Your task to perform on an android device: turn smart compose on in the gmail app Image 0: 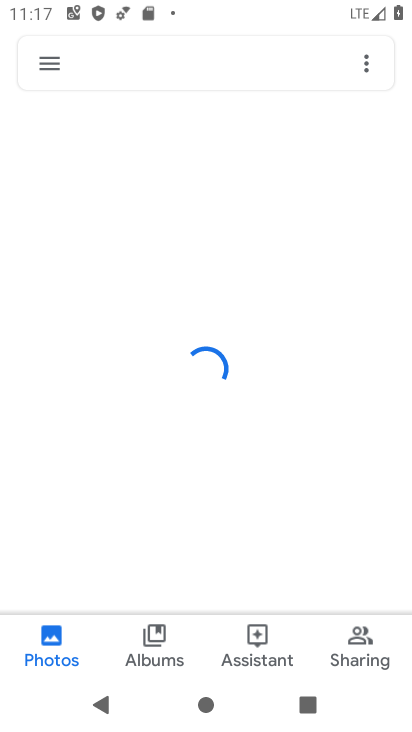
Step 0: press home button
Your task to perform on an android device: turn smart compose on in the gmail app Image 1: 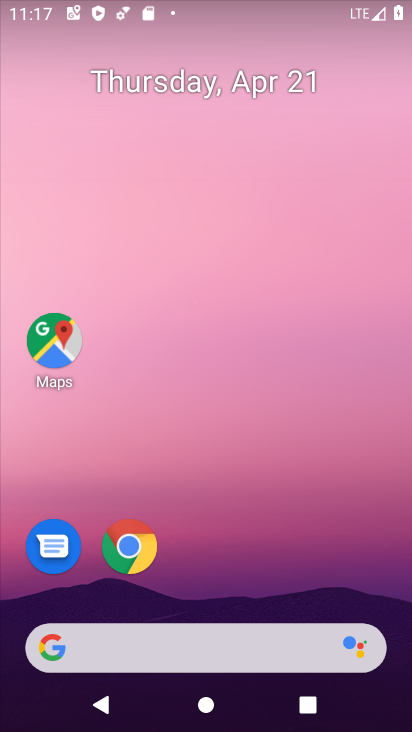
Step 1: drag from (226, 546) to (227, 126)
Your task to perform on an android device: turn smart compose on in the gmail app Image 2: 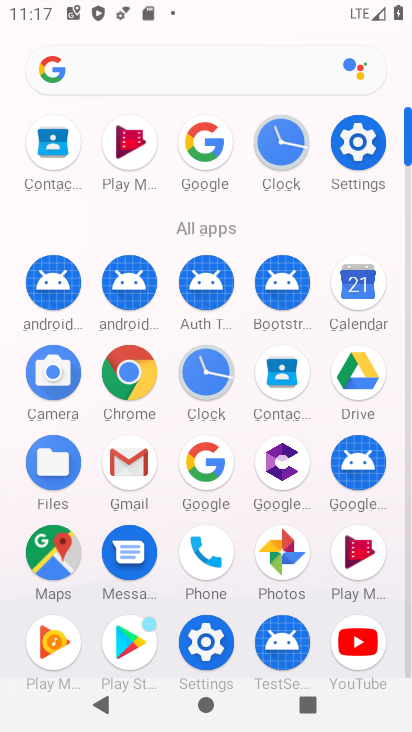
Step 2: click (128, 466)
Your task to perform on an android device: turn smart compose on in the gmail app Image 3: 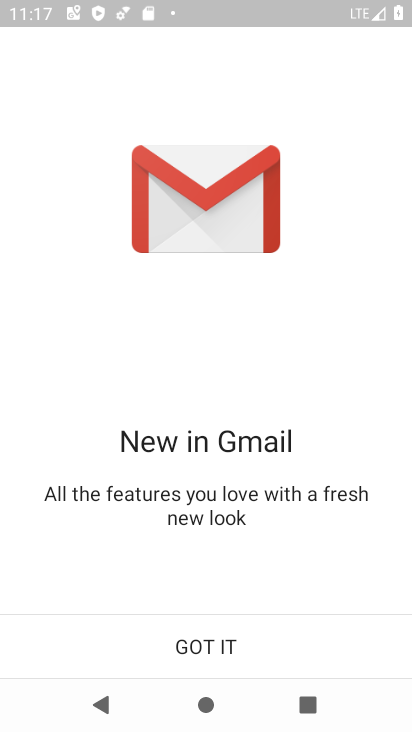
Step 3: click (214, 651)
Your task to perform on an android device: turn smart compose on in the gmail app Image 4: 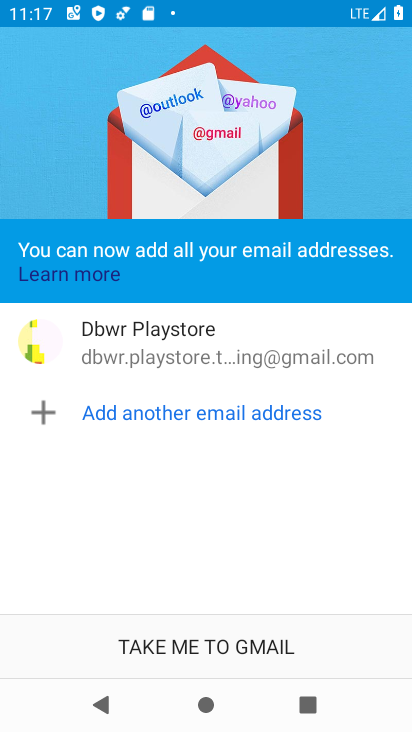
Step 4: click (214, 651)
Your task to perform on an android device: turn smart compose on in the gmail app Image 5: 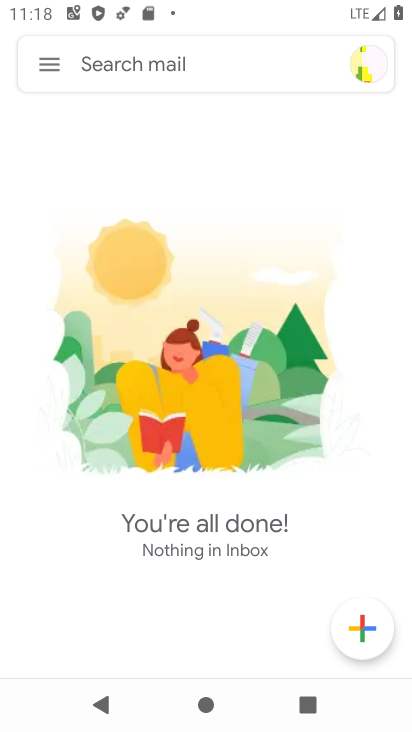
Step 5: click (37, 65)
Your task to perform on an android device: turn smart compose on in the gmail app Image 6: 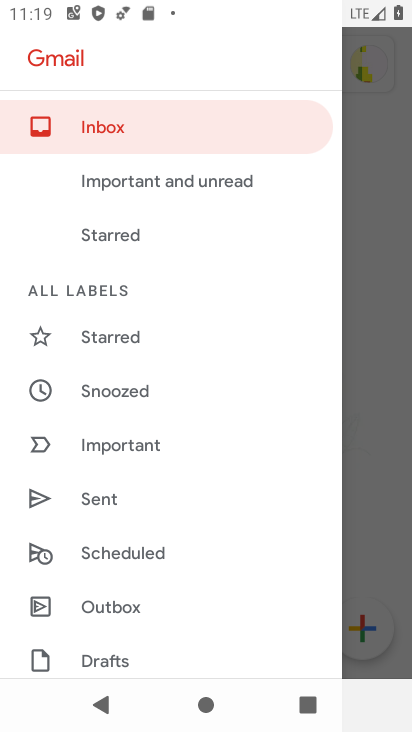
Step 6: drag from (199, 494) to (197, 203)
Your task to perform on an android device: turn smart compose on in the gmail app Image 7: 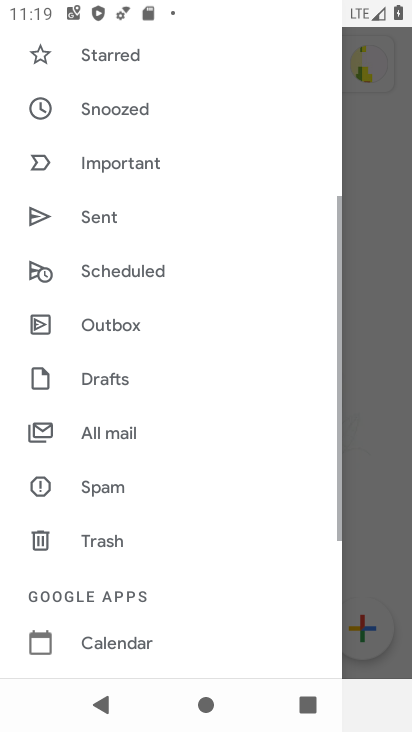
Step 7: drag from (172, 597) to (199, 175)
Your task to perform on an android device: turn smart compose on in the gmail app Image 8: 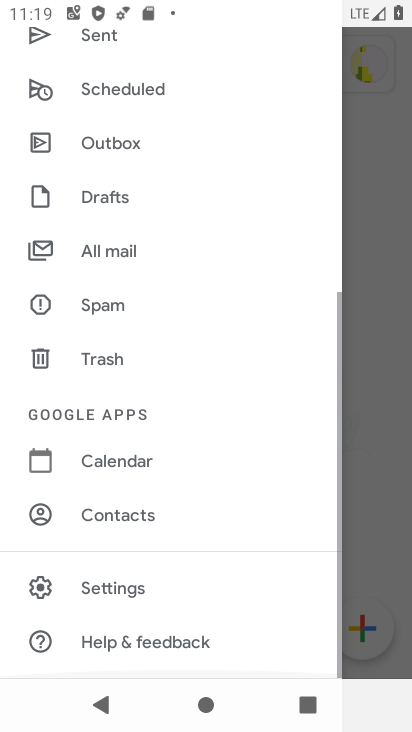
Step 8: click (109, 580)
Your task to perform on an android device: turn smart compose on in the gmail app Image 9: 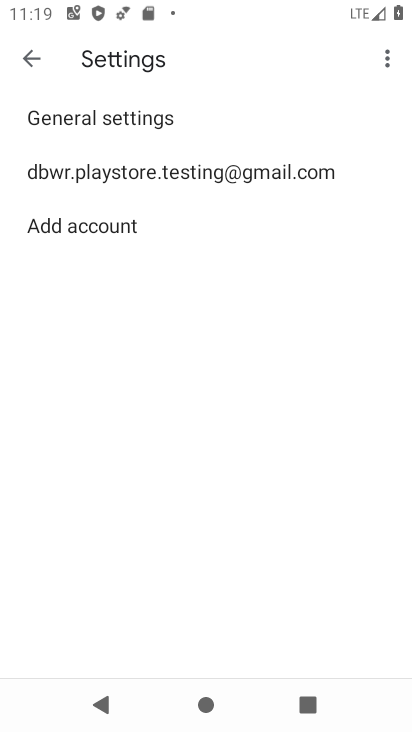
Step 9: click (176, 163)
Your task to perform on an android device: turn smart compose on in the gmail app Image 10: 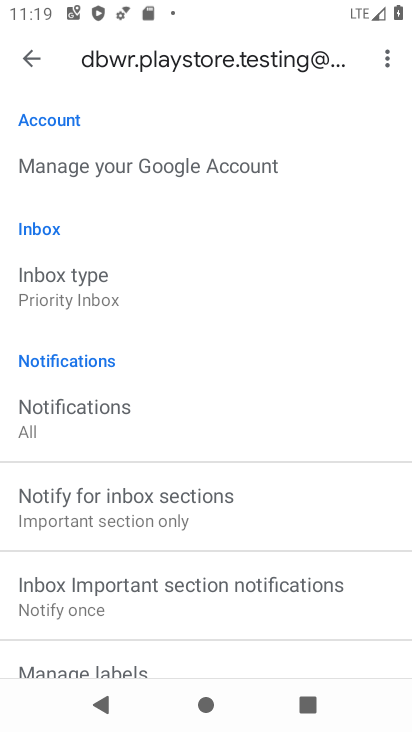
Step 10: task complete